Your task to perform on an android device: check the backup settings in the google photos Image 0: 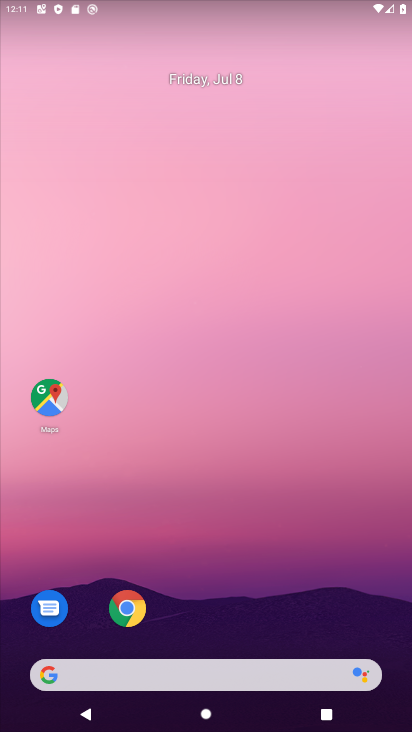
Step 0: click (110, 605)
Your task to perform on an android device: check the backup settings in the google photos Image 1: 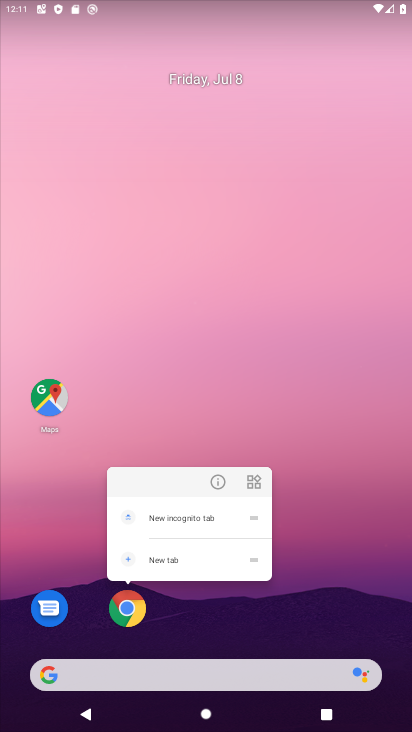
Step 1: press home button
Your task to perform on an android device: check the backup settings in the google photos Image 2: 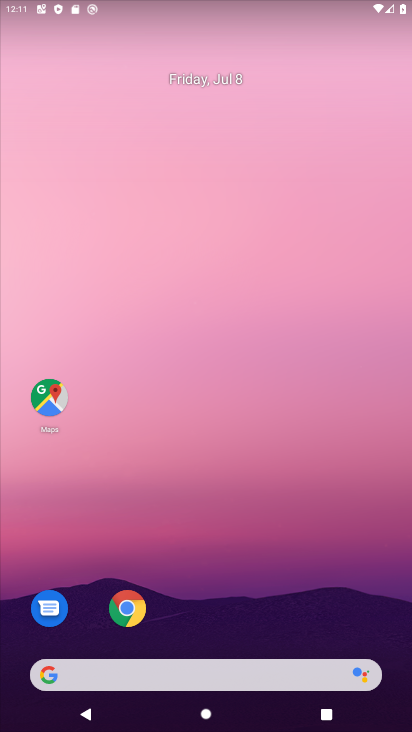
Step 2: drag from (52, 681) to (208, 79)
Your task to perform on an android device: check the backup settings in the google photos Image 3: 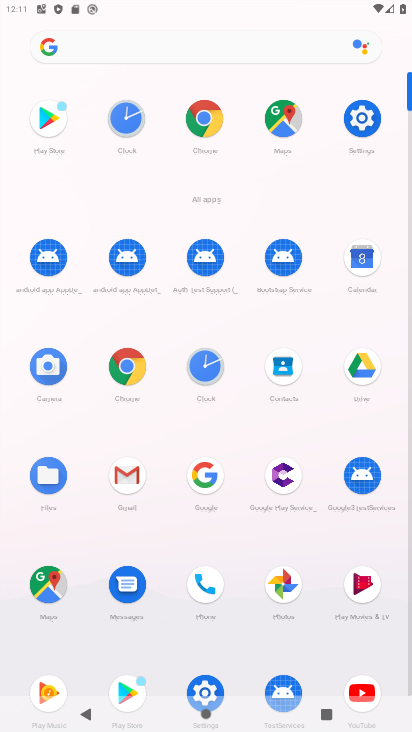
Step 3: click (274, 578)
Your task to perform on an android device: check the backup settings in the google photos Image 4: 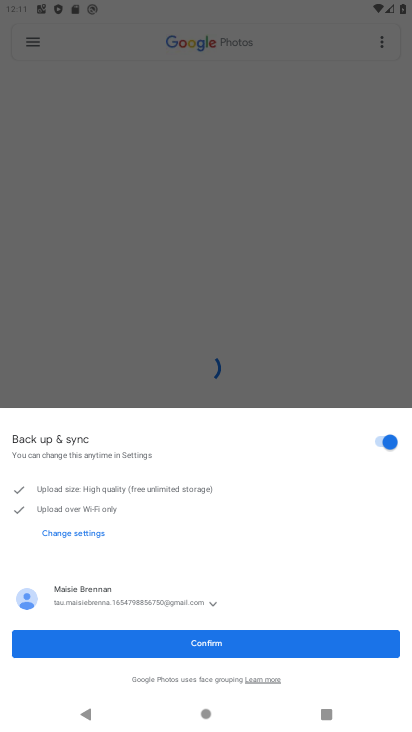
Step 4: click (223, 652)
Your task to perform on an android device: check the backup settings in the google photos Image 5: 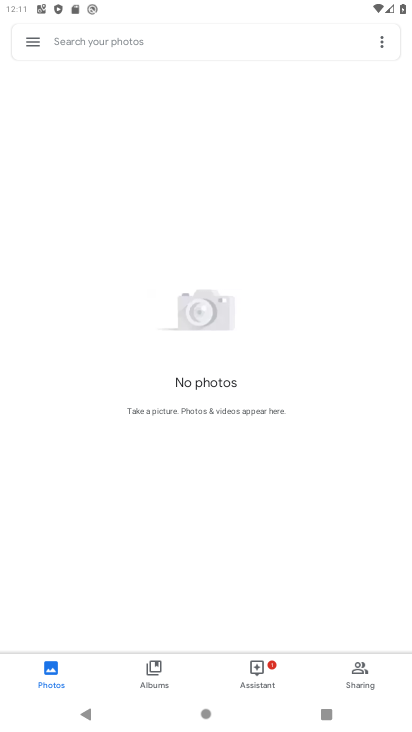
Step 5: click (23, 41)
Your task to perform on an android device: check the backup settings in the google photos Image 6: 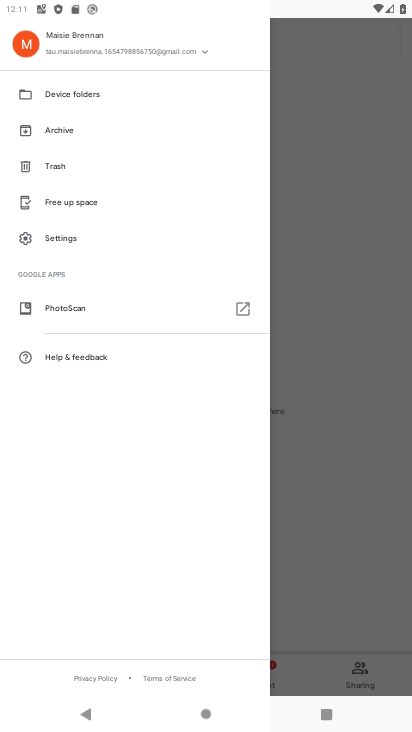
Step 6: click (61, 238)
Your task to perform on an android device: check the backup settings in the google photos Image 7: 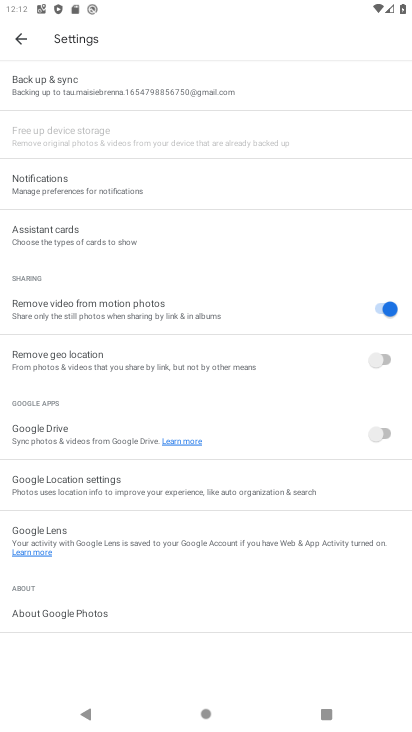
Step 7: click (68, 90)
Your task to perform on an android device: check the backup settings in the google photos Image 8: 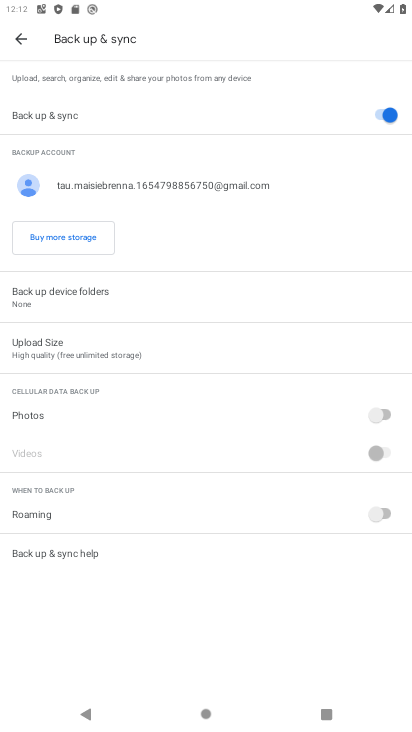
Step 8: task complete